Your task to perform on an android device: change notification settings in the gmail app Image 0: 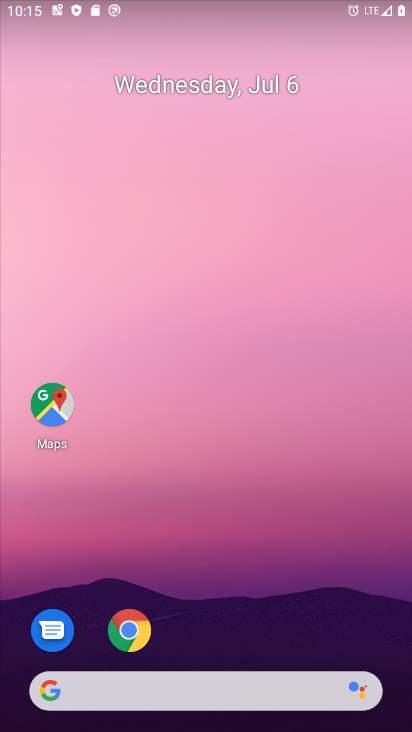
Step 0: drag from (353, 626) to (336, 42)
Your task to perform on an android device: change notification settings in the gmail app Image 1: 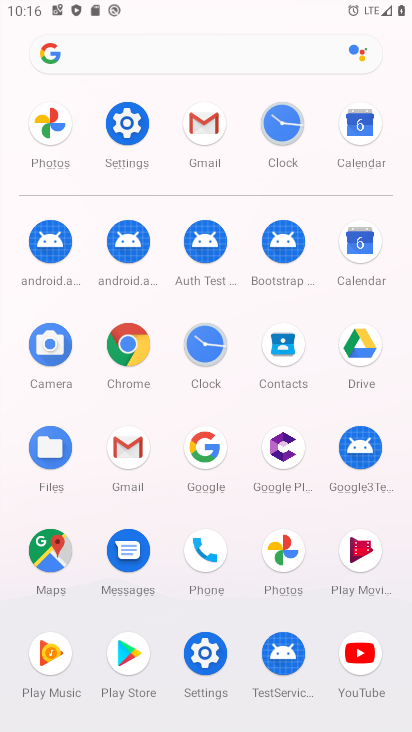
Step 1: click (128, 449)
Your task to perform on an android device: change notification settings in the gmail app Image 2: 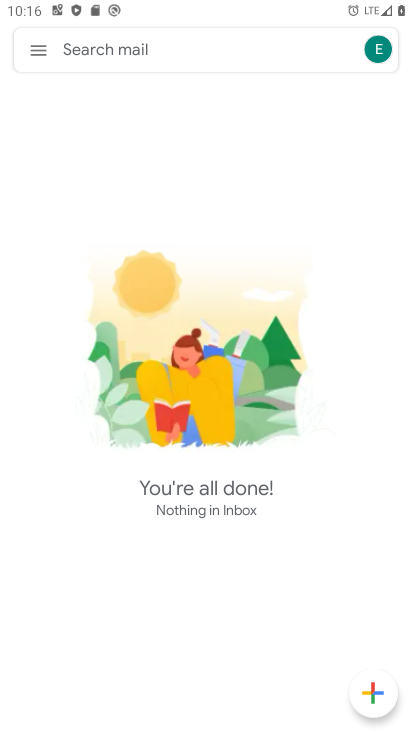
Step 2: click (36, 64)
Your task to perform on an android device: change notification settings in the gmail app Image 3: 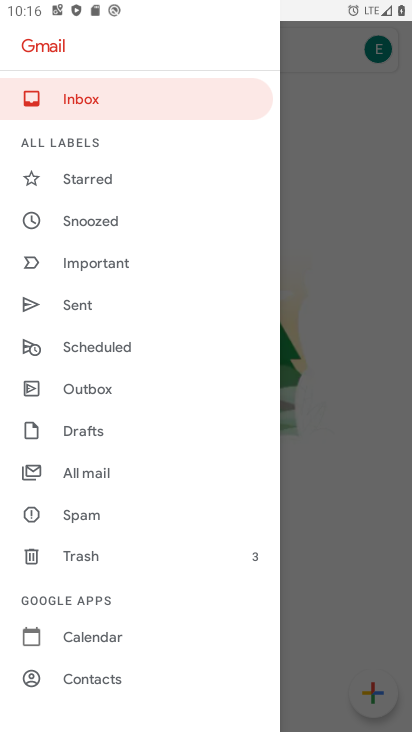
Step 3: drag from (122, 684) to (120, 221)
Your task to perform on an android device: change notification settings in the gmail app Image 4: 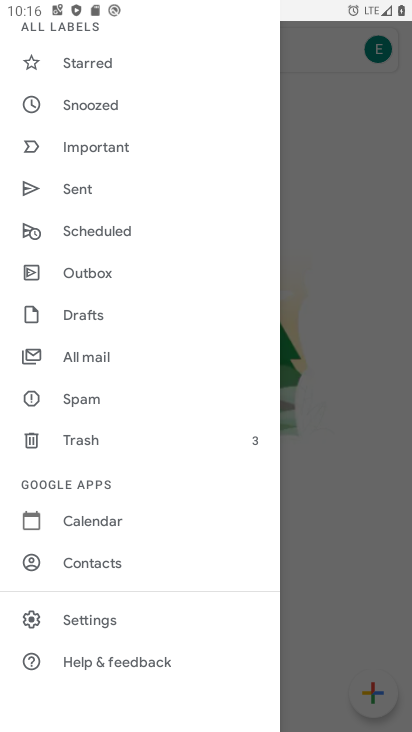
Step 4: click (104, 617)
Your task to perform on an android device: change notification settings in the gmail app Image 5: 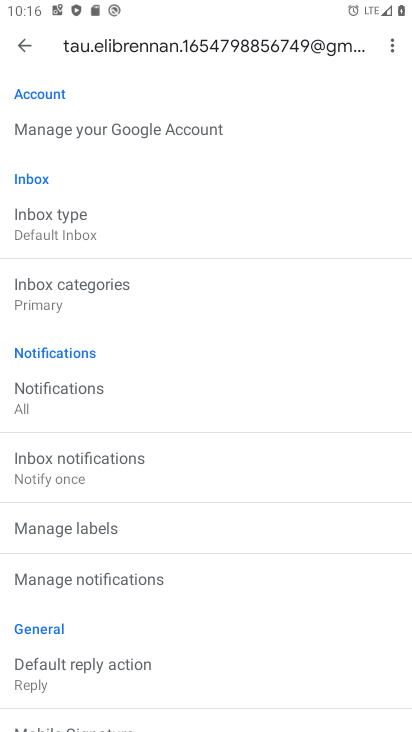
Step 5: click (108, 577)
Your task to perform on an android device: change notification settings in the gmail app Image 6: 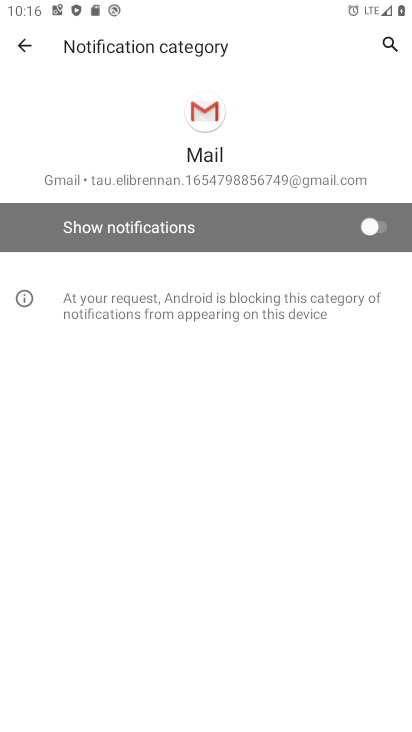
Step 6: click (379, 229)
Your task to perform on an android device: change notification settings in the gmail app Image 7: 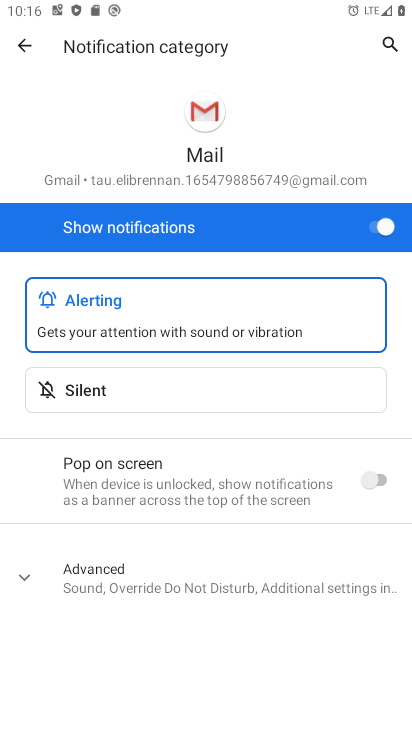
Step 7: task complete